Your task to perform on an android device: Go to Maps Image 0: 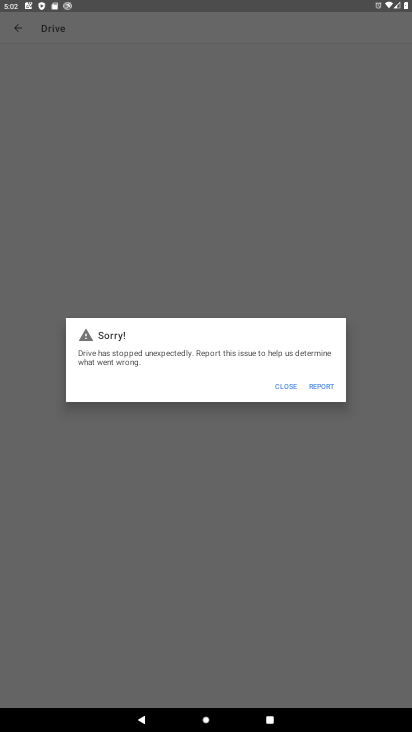
Step 0: press home button
Your task to perform on an android device: Go to Maps Image 1: 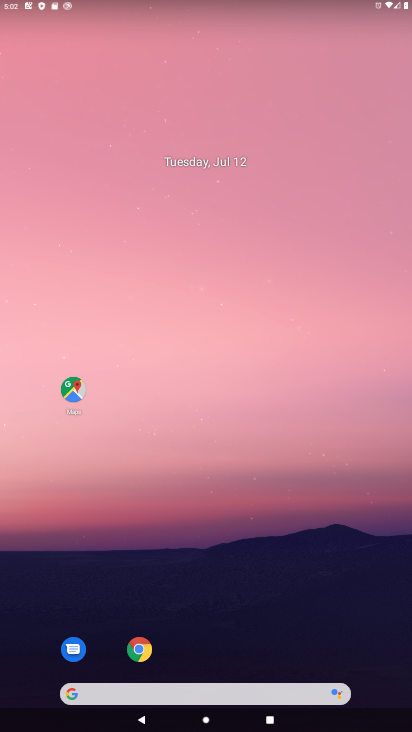
Step 1: click (73, 393)
Your task to perform on an android device: Go to Maps Image 2: 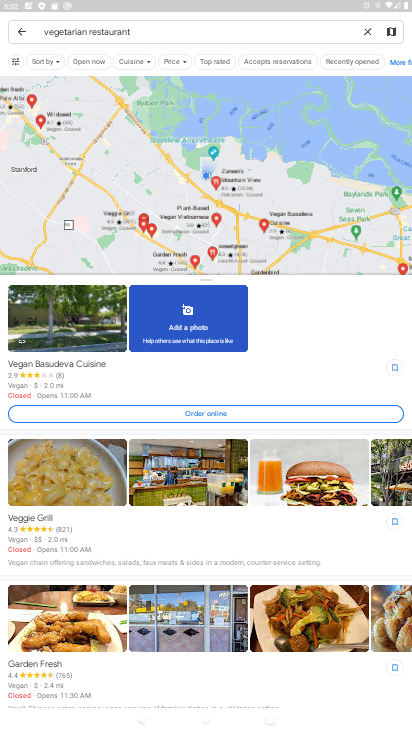
Step 2: click (368, 33)
Your task to perform on an android device: Go to Maps Image 3: 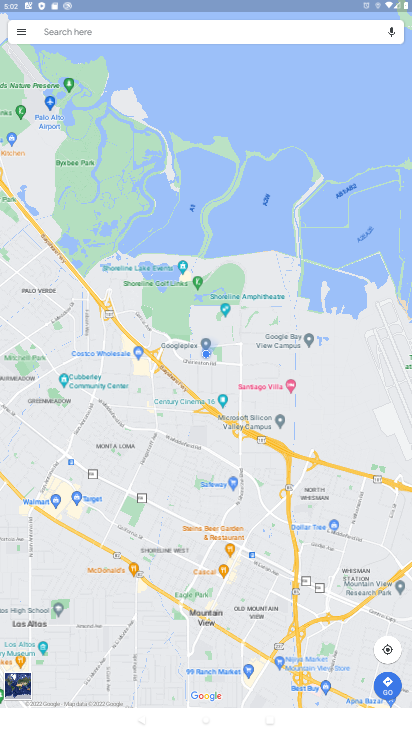
Step 3: task complete